Your task to perform on an android device: What's the weather going to be this weekend? Image 0: 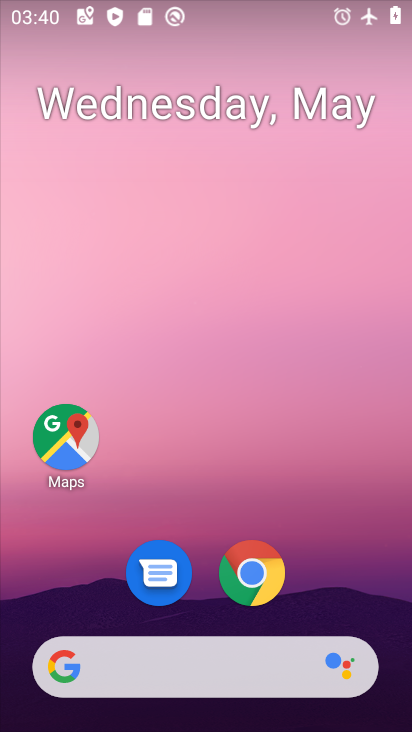
Step 0: drag from (229, 723) to (227, 54)
Your task to perform on an android device: What's the weather going to be this weekend? Image 1: 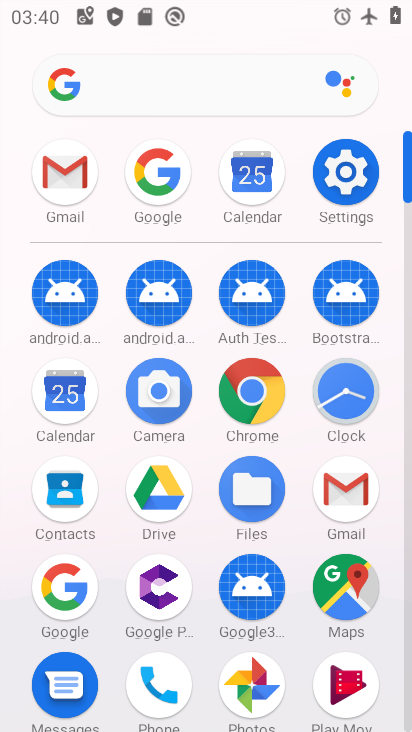
Step 1: click (65, 397)
Your task to perform on an android device: What's the weather going to be this weekend? Image 2: 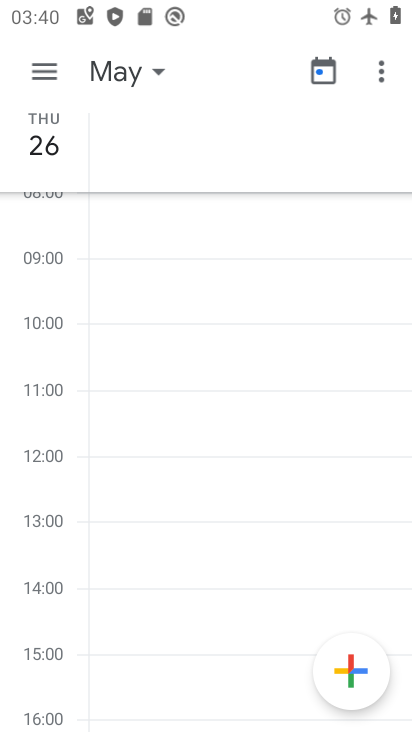
Step 2: click (162, 74)
Your task to perform on an android device: What's the weather going to be this weekend? Image 3: 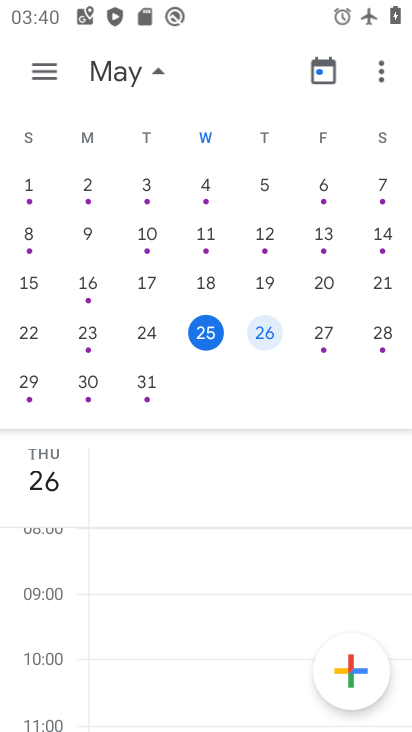
Step 3: press home button
Your task to perform on an android device: What's the weather going to be this weekend? Image 4: 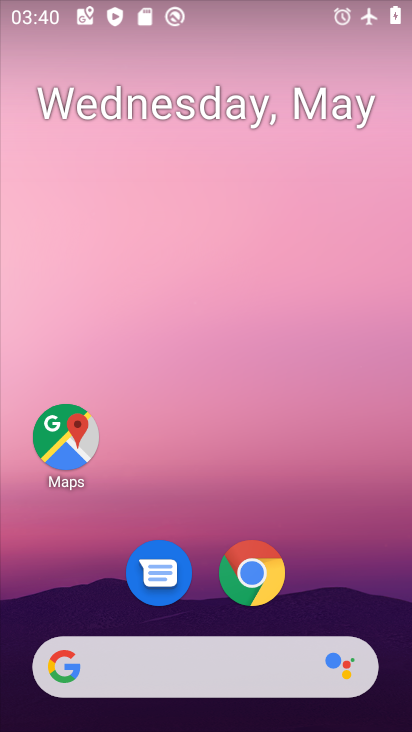
Step 4: drag from (218, 689) to (215, 18)
Your task to perform on an android device: What's the weather going to be this weekend? Image 5: 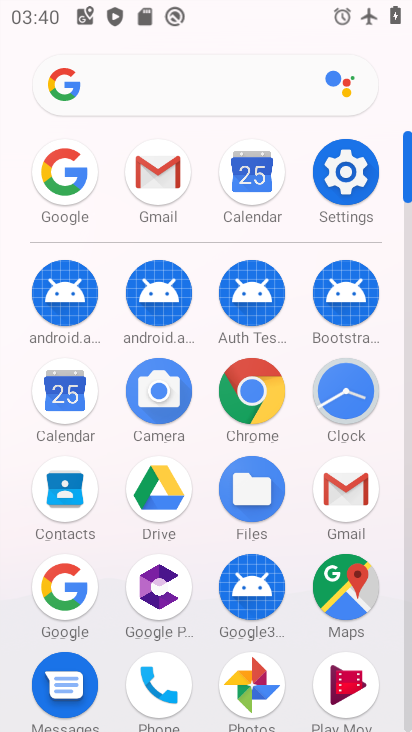
Step 5: click (71, 576)
Your task to perform on an android device: What's the weather going to be this weekend? Image 6: 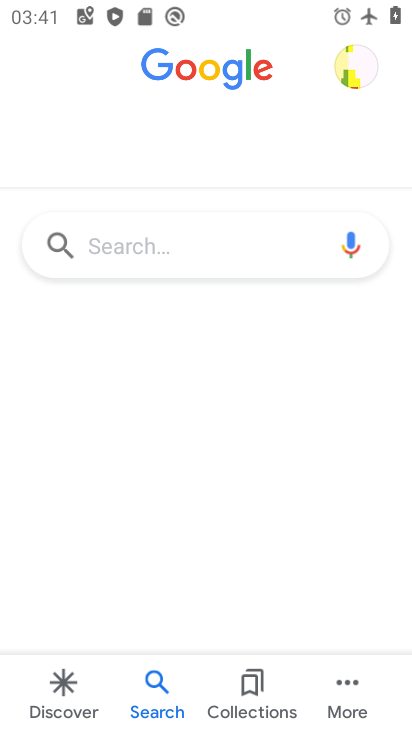
Step 6: click (170, 239)
Your task to perform on an android device: What's the weather going to be this weekend? Image 7: 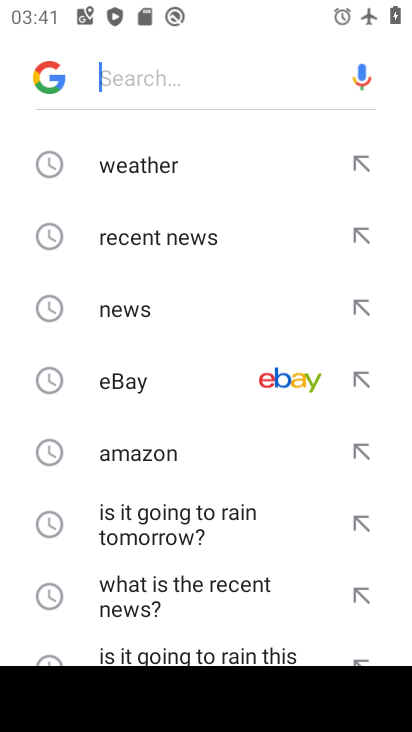
Step 7: click (148, 155)
Your task to perform on an android device: What's the weather going to be this weekend? Image 8: 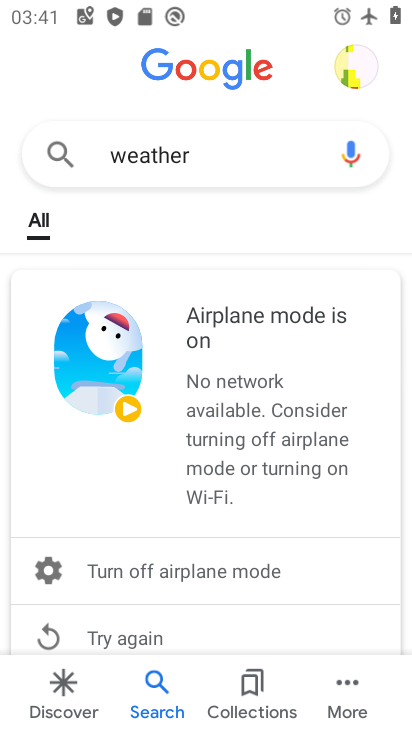
Step 8: task complete